Your task to perform on an android device: Turn off the flashlight Image 0: 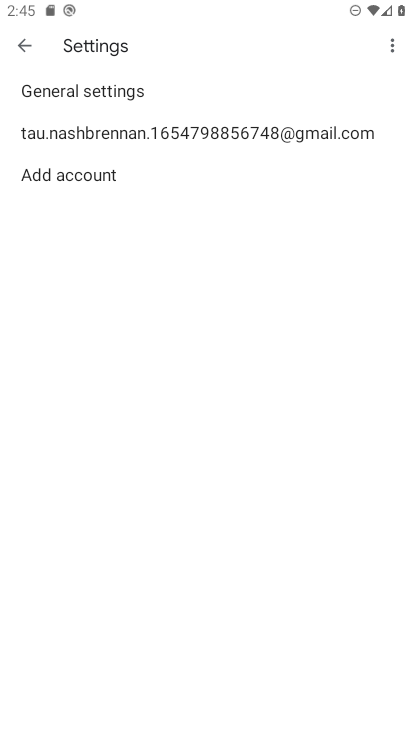
Step 0: press home button
Your task to perform on an android device: Turn off the flashlight Image 1: 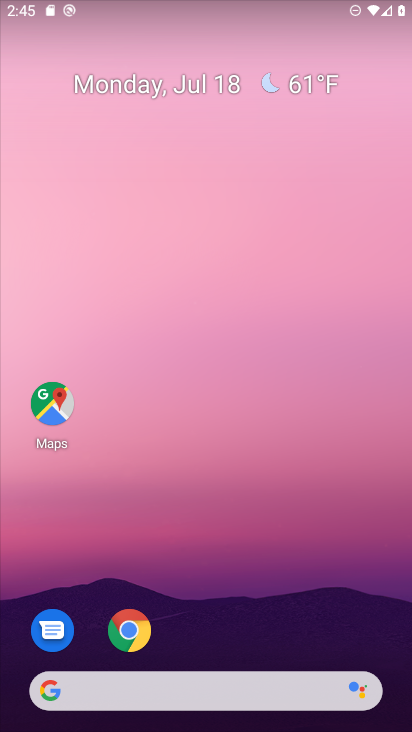
Step 1: drag from (260, 570) to (298, 37)
Your task to perform on an android device: Turn off the flashlight Image 2: 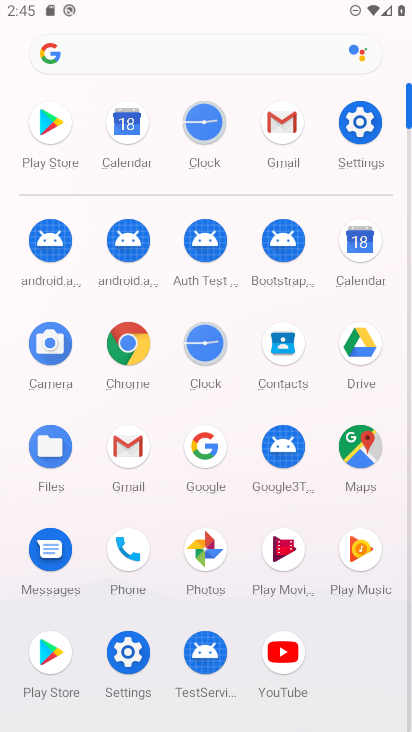
Step 2: click (353, 122)
Your task to perform on an android device: Turn off the flashlight Image 3: 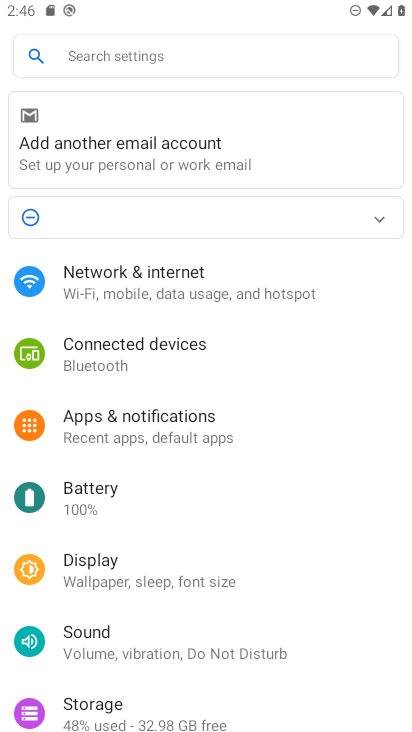
Step 3: click (253, 52)
Your task to perform on an android device: Turn off the flashlight Image 4: 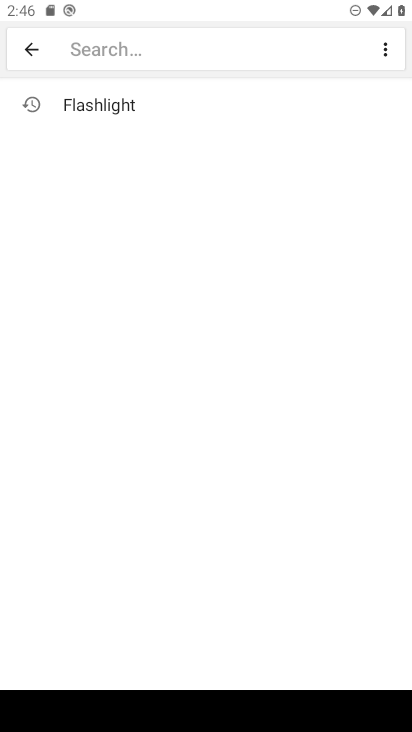
Step 4: click (103, 111)
Your task to perform on an android device: Turn off the flashlight Image 5: 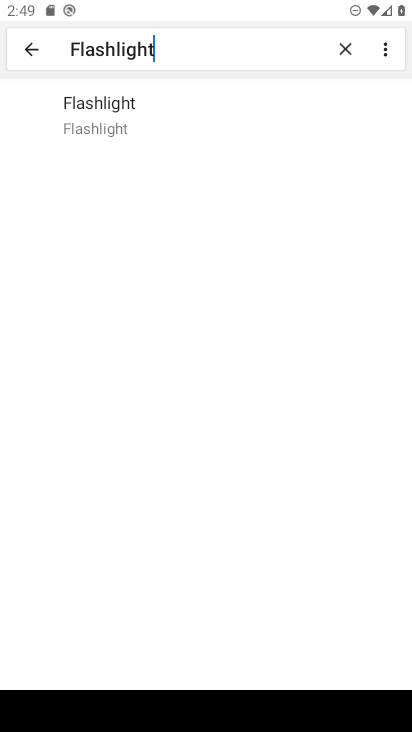
Step 5: task complete